Your task to perform on an android device: Open Youtube and go to the subscriptions tab Image 0: 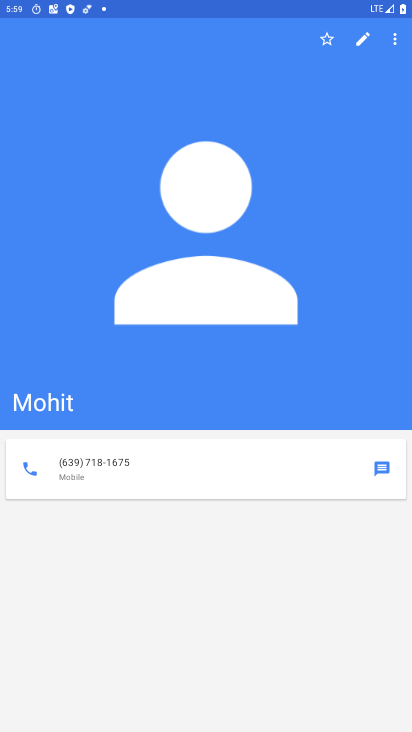
Step 0: press home button
Your task to perform on an android device: Open Youtube and go to the subscriptions tab Image 1: 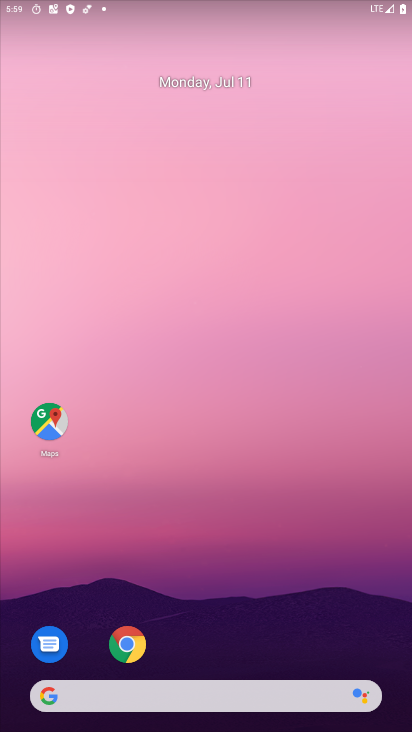
Step 1: drag from (250, 583) to (264, 1)
Your task to perform on an android device: Open Youtube and go to the subscriptions tab Image 2: 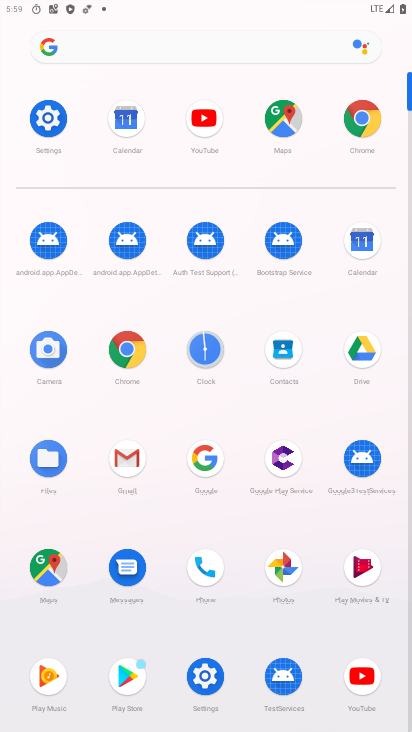
Step 2: click (351, 674)
Your task to perform on an android device: Open Youtube and go to the subscriptions tab Image 3: 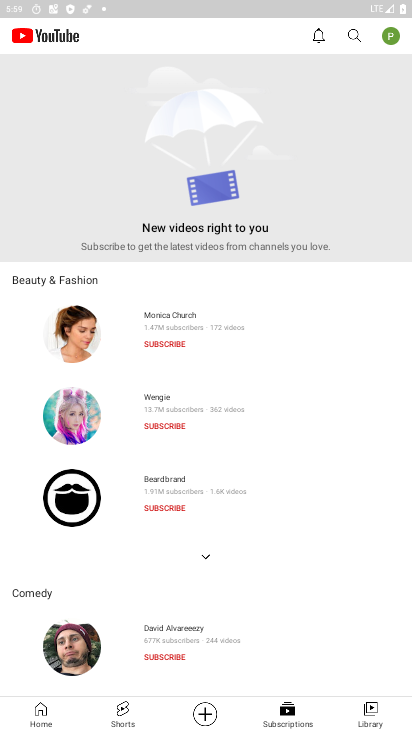
Step 3: task complete